Your task to perform on an android device: empty trash in the gmail app Image 0: 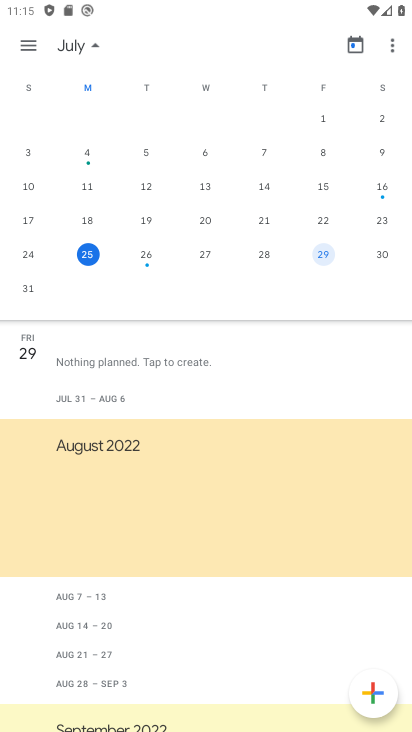
Step 0: press back button
Your task to perform on an android device: empty trash in the gmail app Image 1: 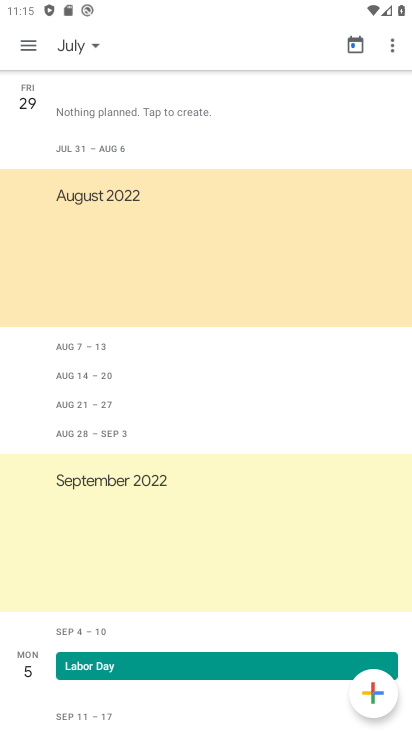
Step 1: press home button
Your task to perform on an android device: empty trash in the gmail app Image 2: 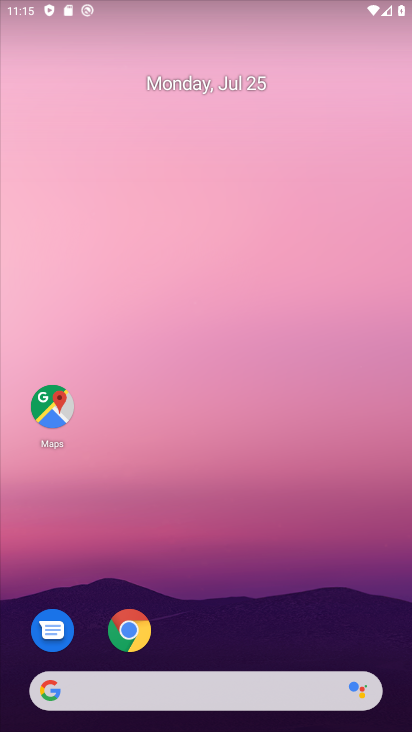
Step 2: drag from (225, 652) to (211, 159)
Your task to perform on an android device: empty trash in the gmail app Image 3: 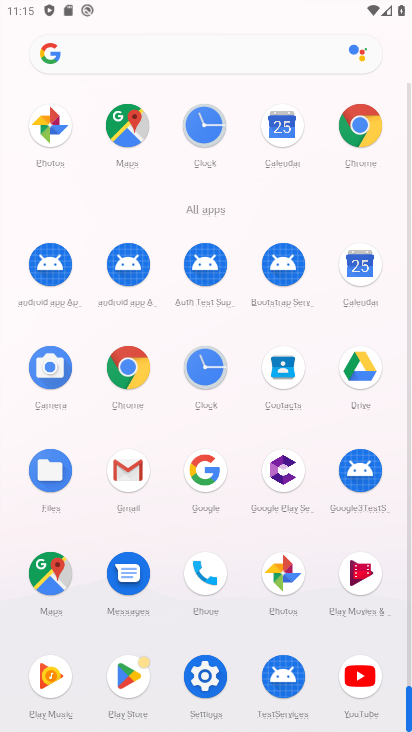
Step 3: click (135, 468)
Your task to perform on an android device: empty trash in the gmail app Image 4: 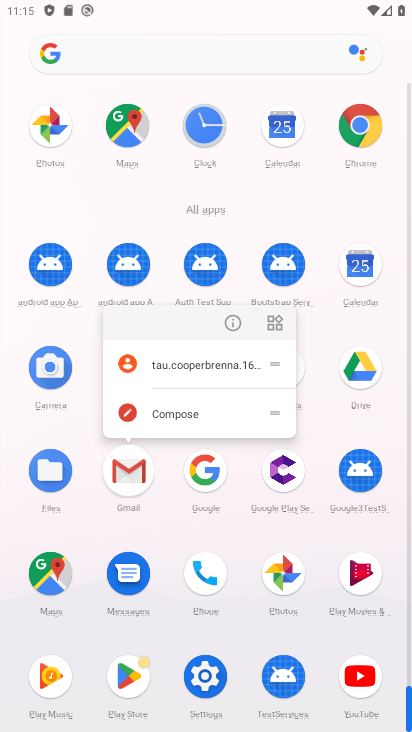
Step 4: click (134, 471)
Your task to perform on an android device: empty trash in the gmail app Image 5: 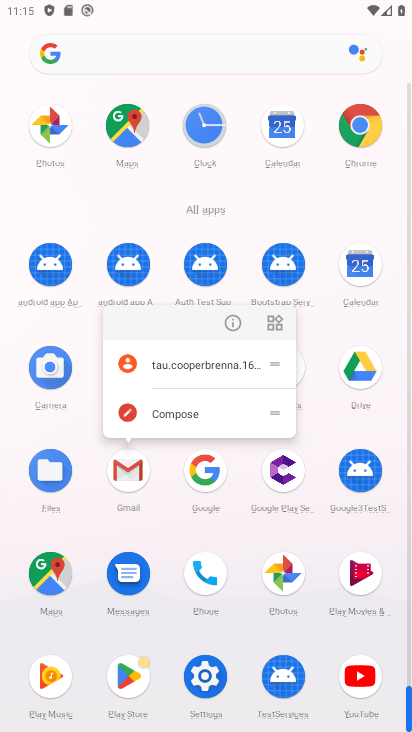
Step 5: click (141, 478)
Your task to perform on an android device: empty trash in the gmail app Image 6: 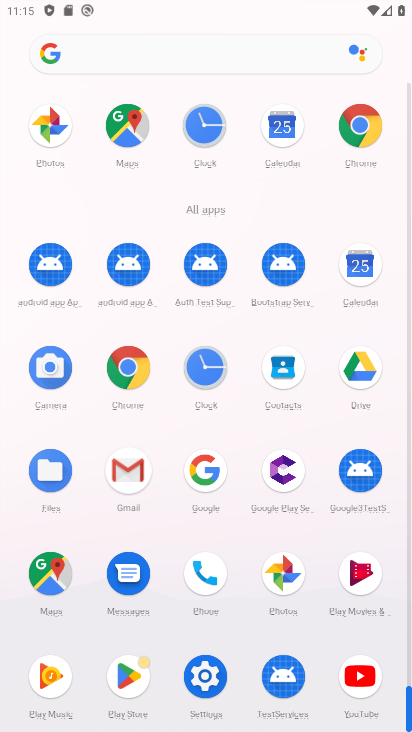
Step 6: click (139, 478)
Your task to perform on an android device: empty trash in the gmail app Image 7: 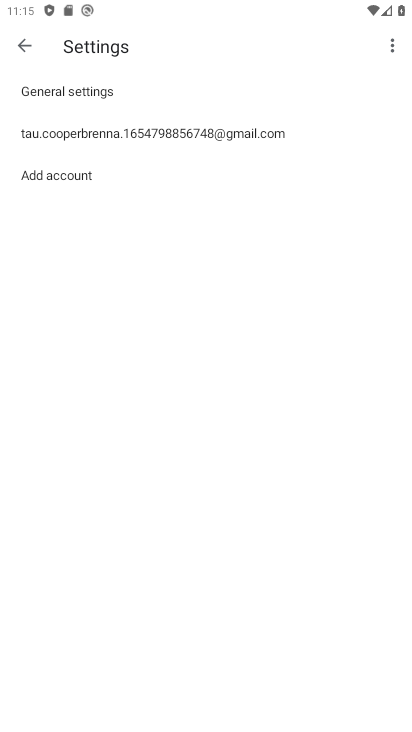
Step 7: click (12, 42)
Your task to perform on an android device: empty trash in the gmail app Image 8: 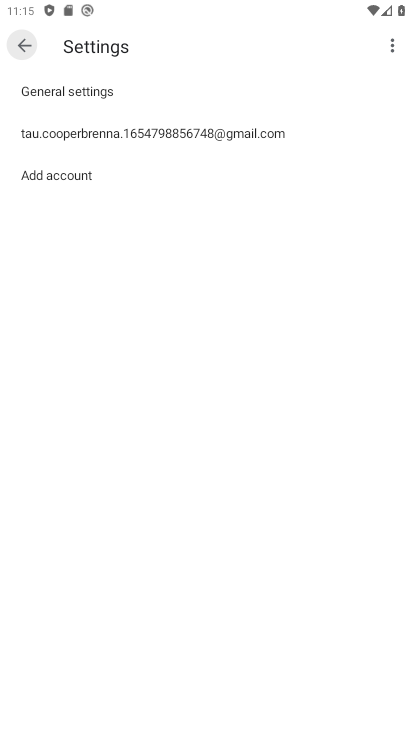
Step 8: click (14, 44)
Your task to perform on an android device: empty trash in the gmail app Image 9: 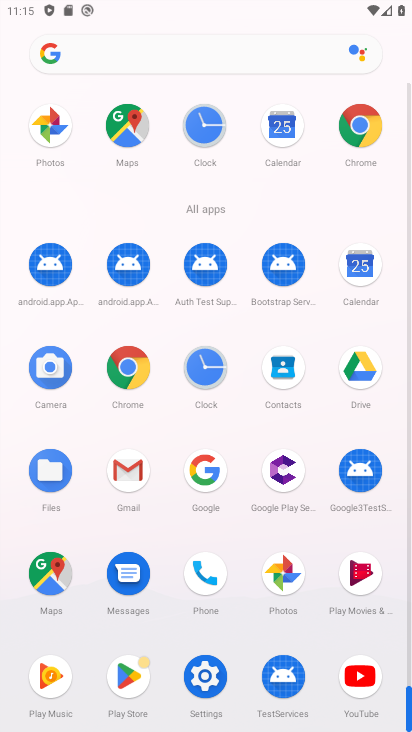
Step 9: click (128, 470)
Your task to perform on an android device: empty trash in the gmail app Image 10: 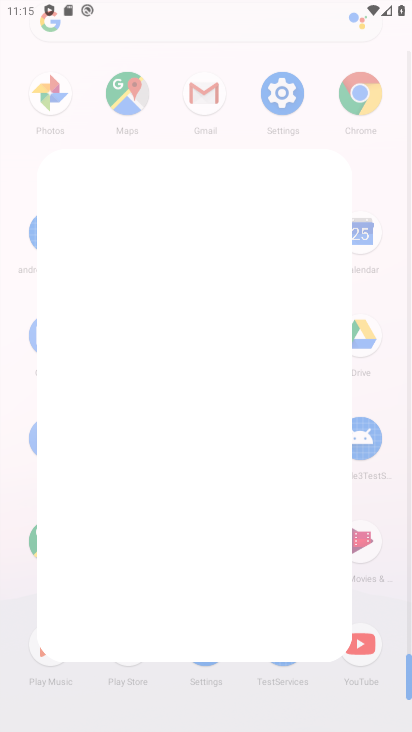
Step 10: click (145, 480)
Your task to perform on an android device: empty trash in the gmail app Image 11: 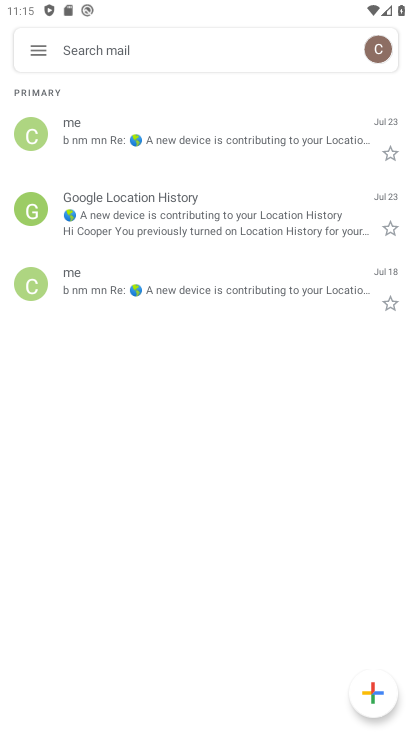
Step 11: click (38, 45)
Your task to perform on an android device: empty trash in the gmail app Image 12: 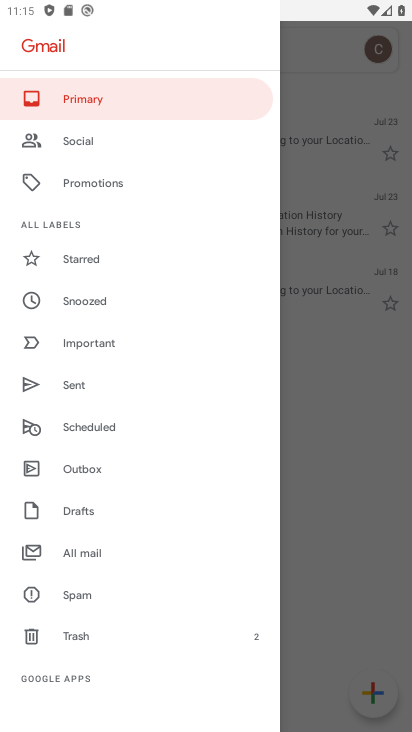
Step 12: drag from (103, 584) to (99, 208)
Your task to perform on an android device: empty trash in the gmail app Image 13: 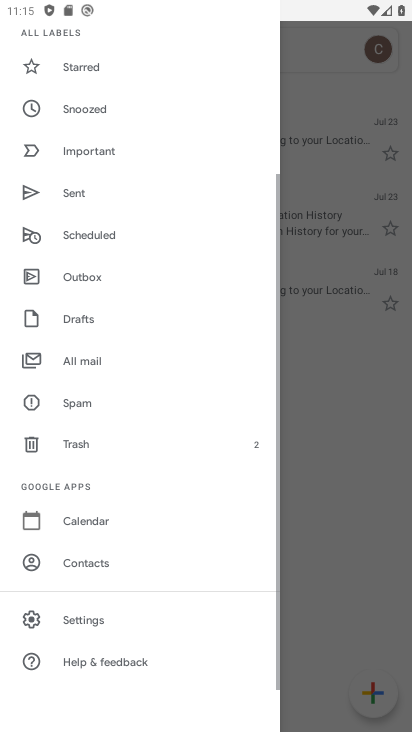
Step 13: drag from (112, 537) to (138, 253)
Your task to perform on an android device: empty trash in the gmail app Image 14: 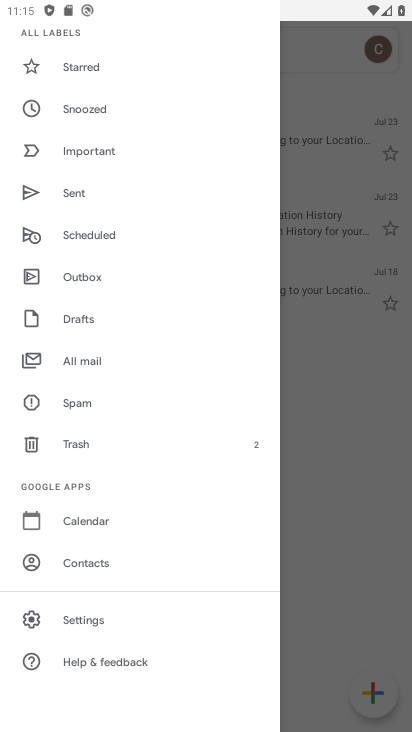
Step 14: click (79, 439)
Your task to perform on an android device: empty trash in the gmail app Image 15: 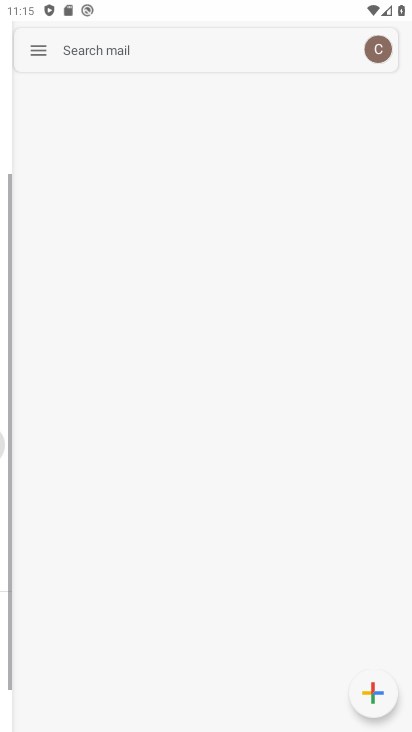
Step 15: click (74, 439)
Your task to perform on an android device: empty trash in the gmail app Image 16: 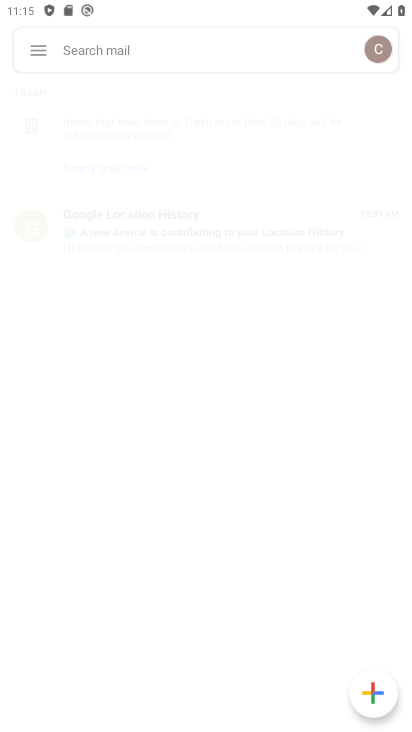
Step 16: click (74, 439)
Your task to perform on an android device: empty trash in the gmail app Image 17: 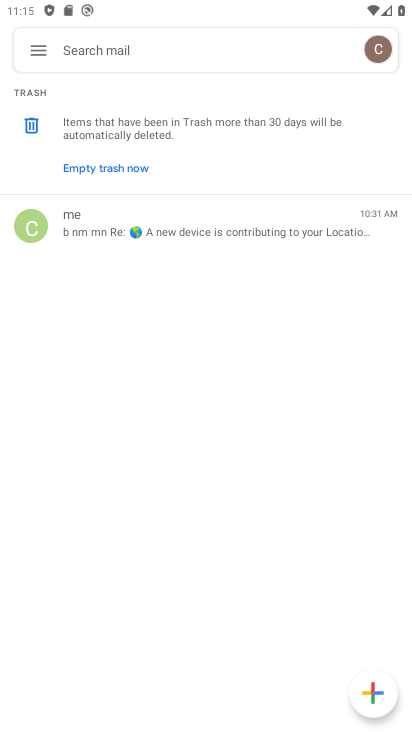
Step 17: click (114, 167)
Your task to perform on an android device: empty trash in the gmail app Image 18: 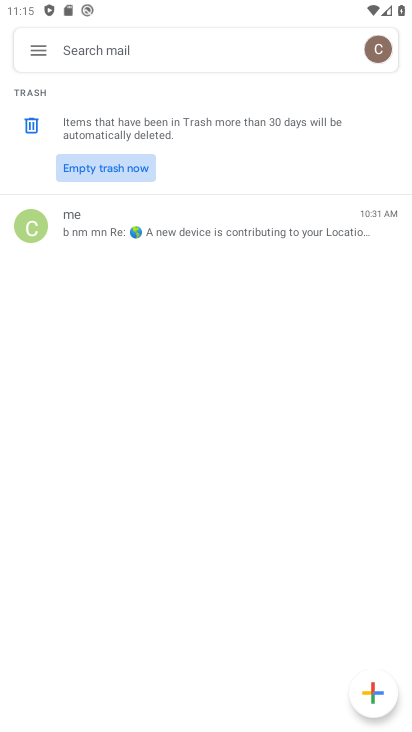
Step 18: click (121, 165)
Your task to perform on an android device: empty trash in the gmail app Image 19: 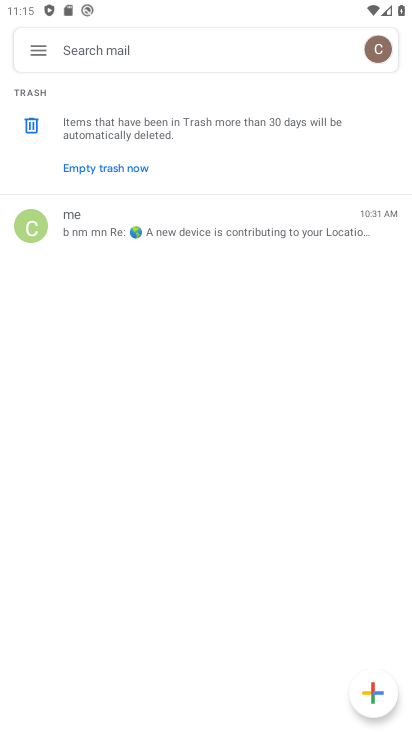
Step 19: click (114, 171)
Your task to perform on an android device: empty trash in the gmail app Image 20: 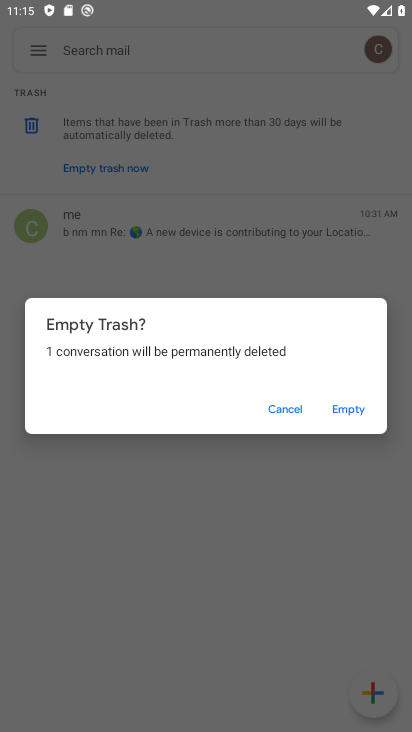
Step 20: click (336, 411)
Your task to perform on an android device: empty trash in the gmail app Image 21: 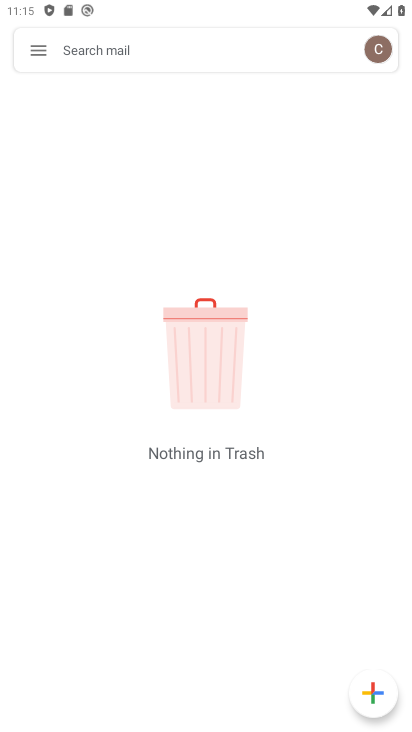
Step 21: task complete